Your task to perform on an android device: Open Google Maps and go to "Timeline" Image 0: 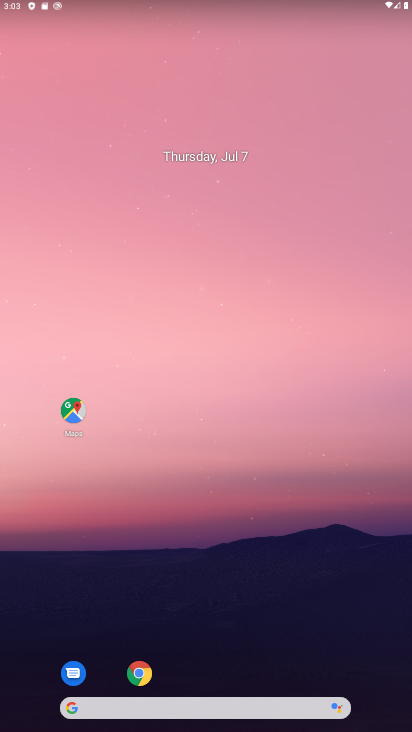
Step 0: drag from (233, 695) to (286, 155)
Your task to perform on an android device: Open Google Maps and go to "Timeline" Image 1: 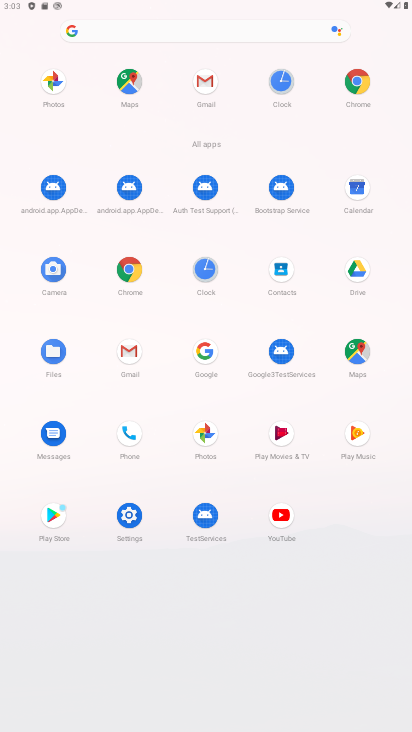
Step 1: click (364, 352)
Your task to perform on an android device: Open Google Maps and go to "Timeline" Image 2: 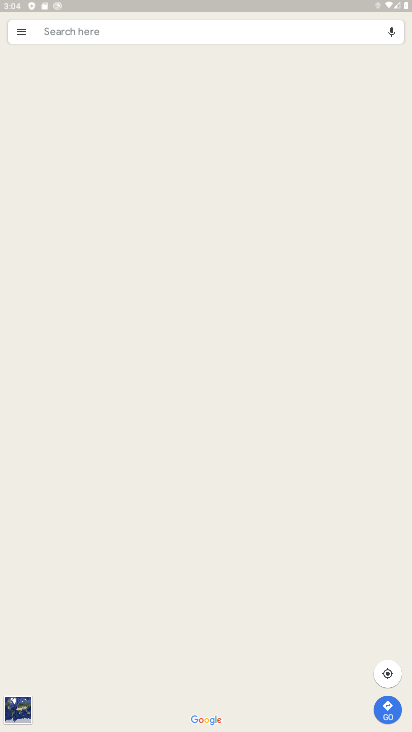
Step 2: click (31, 34)
Your task to perform on an android device: Open Google Maps and go to "Timeline" Image 3: 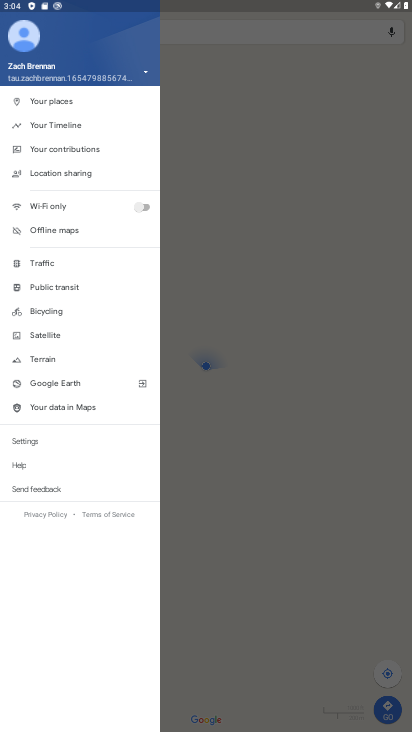
Step 3: click (90, 128)
Your task to perform on an android device: Open Google Maps and go to "Timeline" Image 4: 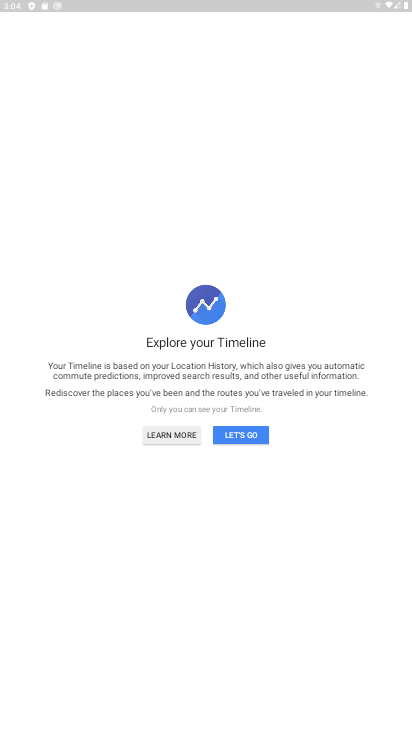
Step 4: click (243, 441)
Your task to perform on an android device: Open Google Maps and go to "Timeline" Image 5: 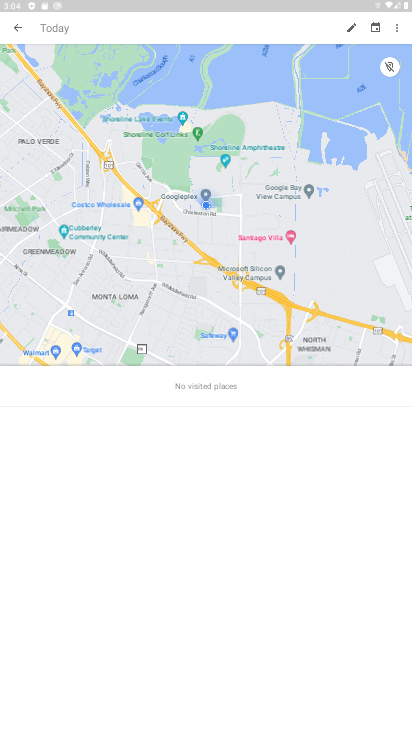
Step 5: task complete